Your task to perform on an android device: check battery use Image 0: 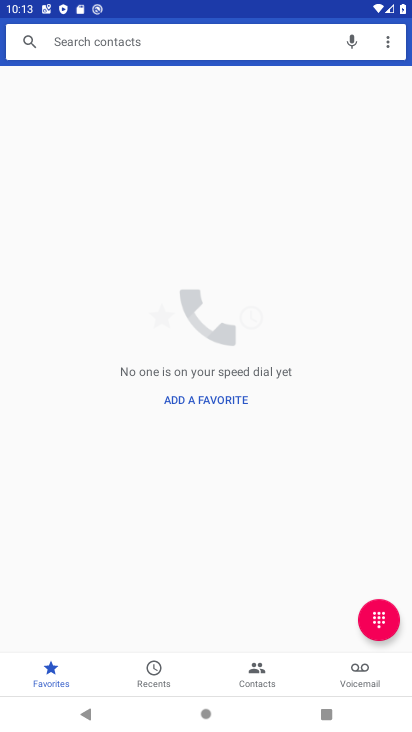
Step 0: press home button
Your task to perform on an android device: check battery use Image 1: 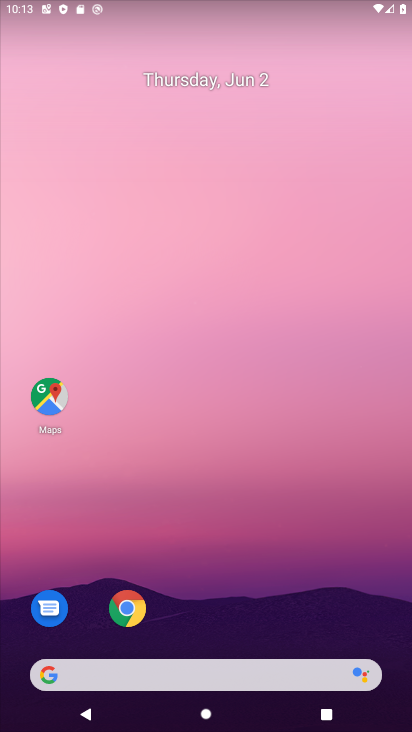
Step 1: drag from (181, 630) to (241, 286)
Your task to perform on an android device: check battery use Image 2: 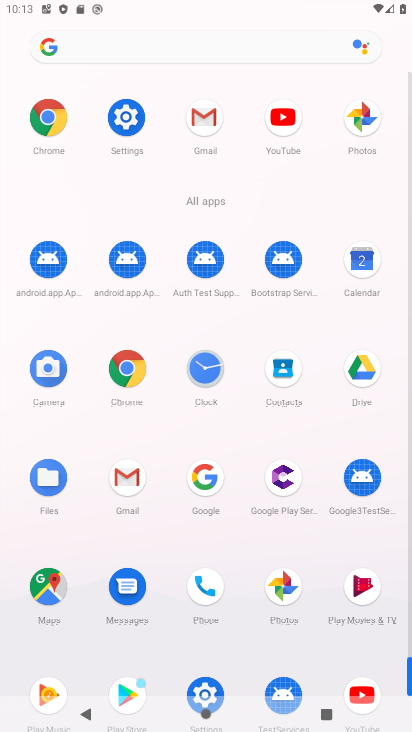
Step 2: click (202, 692)
Your task to perform on an android device: check battery use Image 3: 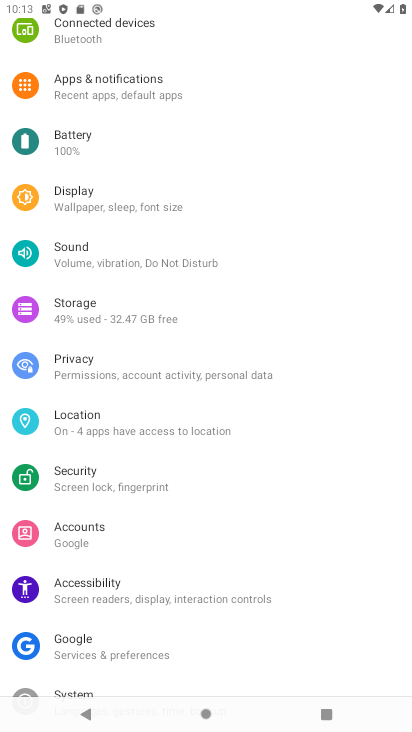
Step 3: click (182, 145)
Your task to perform on an android device: check battery use Image 4: 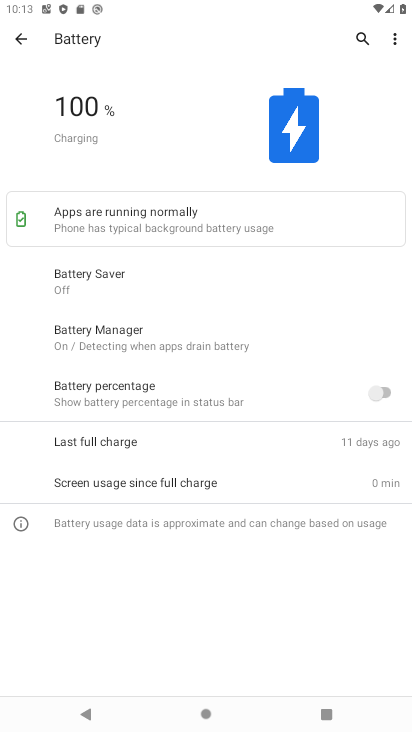
Step 4: click (400, 30)
Your task to perform on an android device: check battery use Image 5: 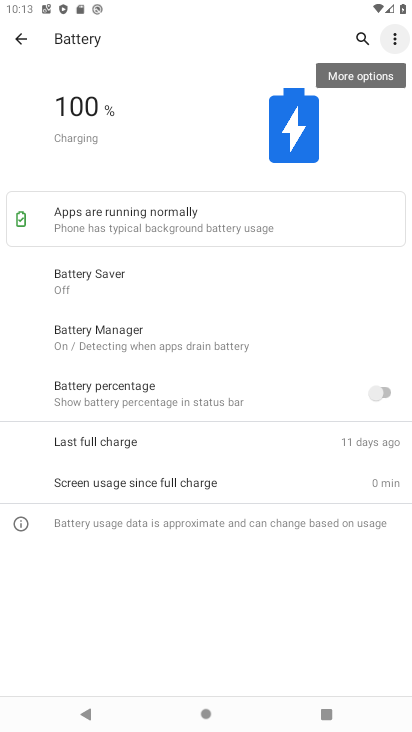
Step 5: click (398, 43)
Your task to perform on an android device: check battery use Image 6: 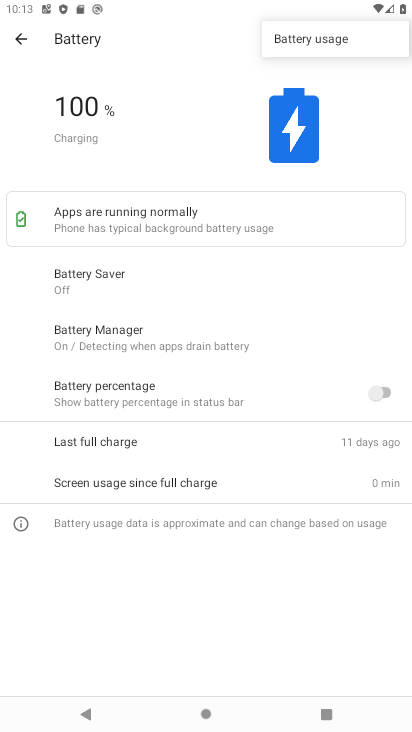
Step 6: click (380, 45)
Your task to perform on an android device: check battery use Image 7: 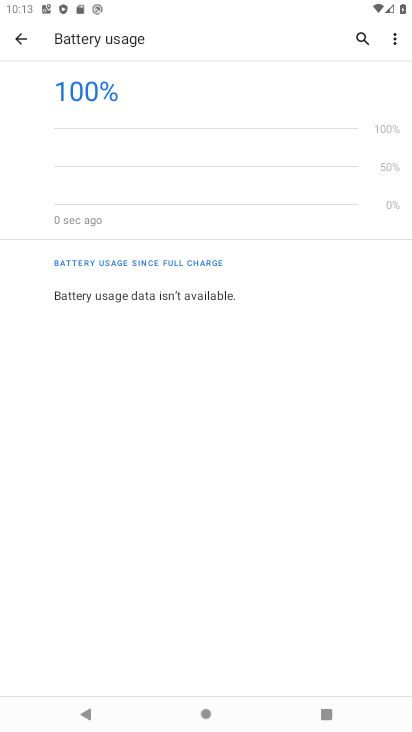
Step 7: task complete